Your task to perform on an android device: snooze an email in the gmail app Image 0: 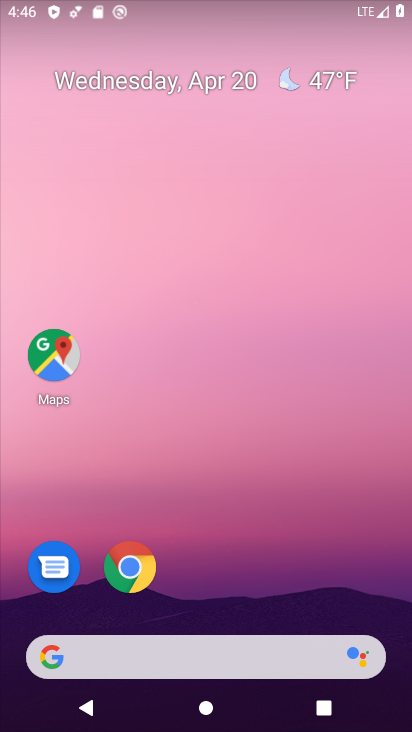
Step 0: drag from (247, 277) to (235, 89)
Your task to perform on an android device: snooze an email in the gmail app Image 1: 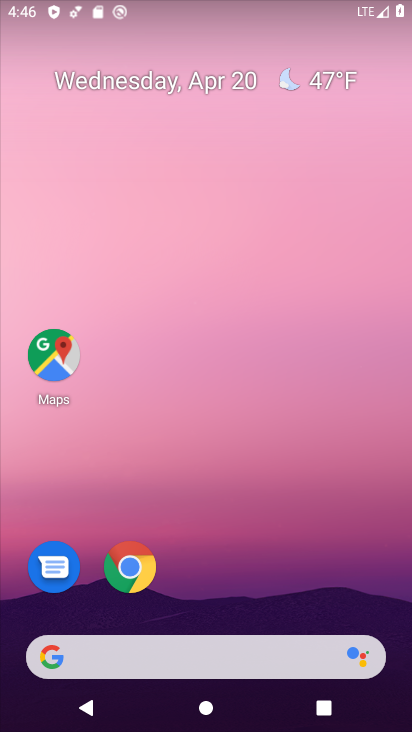
Step 1: drag from (380, 603) to (319, 27)
Your task to perform on an android device: snooze an email in the gmail app Image 2: 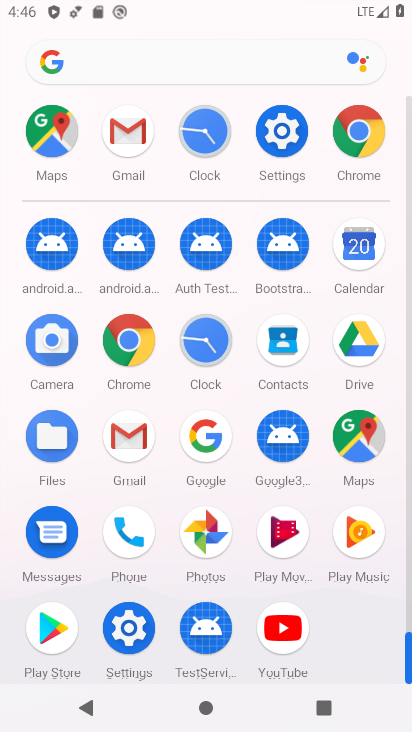
Step 2: click (130, 430)
Your task to perform on an android device: snooze an email in the gmail app Image 3: 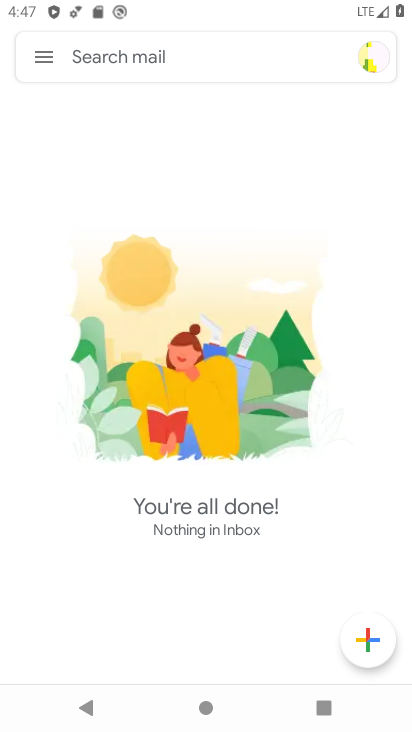
Step 3: click (49, 48)
Your task to perform on an android device: snooze an email in the gmail app Image 4: 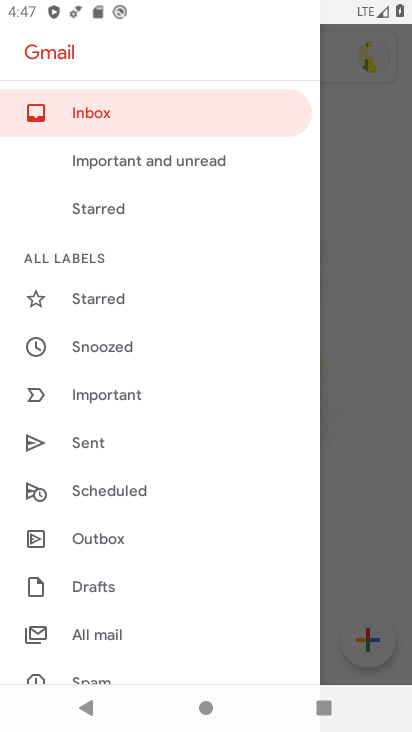
Step 4: drag from (153, 171) to (155, 451)
Your task to perform on an android device: snooze an email in the gmail app Image 5: 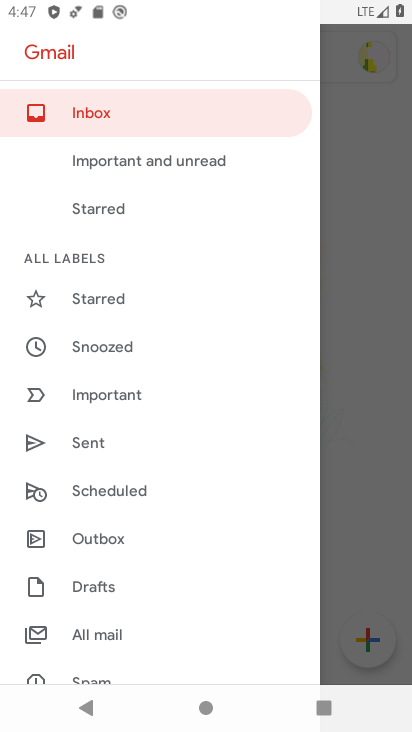
Step 5: drag from (181, 499) to (184, 326)
Your task to perform on an android device: snooze an email in the gmail app Image 6: 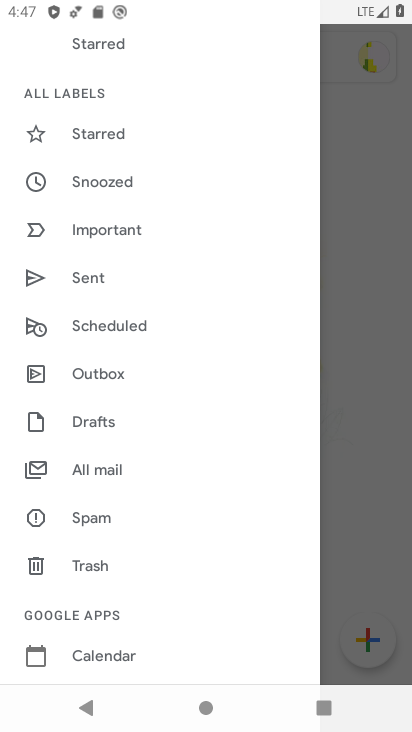
Step 6: click (112, 460)
Your task to perform on an android device: snooze an email in the gmail app Image 7: 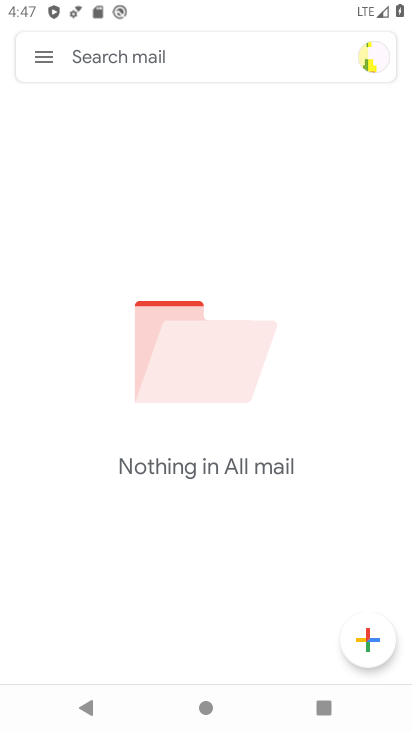
Step 7: task complete